Your task to perform on an android device: turn off notifications settings in the gmail app Image 0: 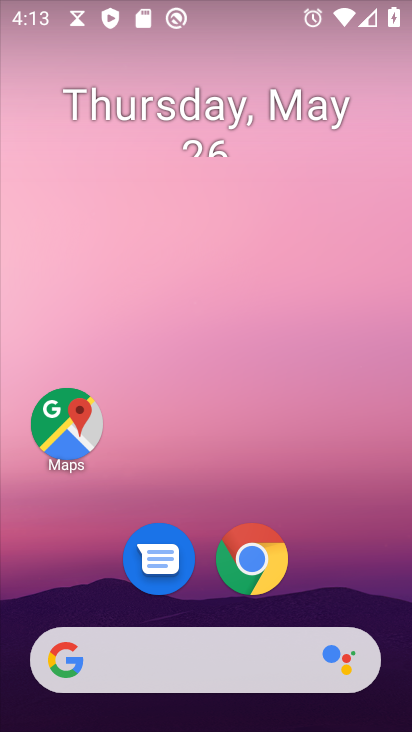
Step 0: drag from (348, 526) to (197, 92)
Your task to perform on an android device: turn off notifications settings in the gmail app Image 1: 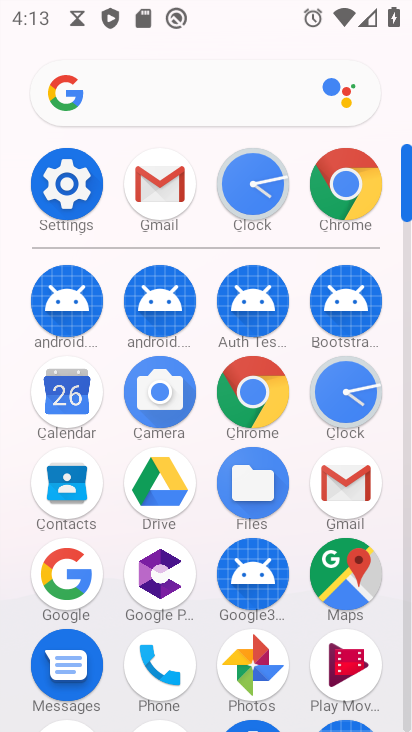
Step 1: click (353, 485)
Your task to perform on an android device: turn off notifications settings in the gmail app Image 2: 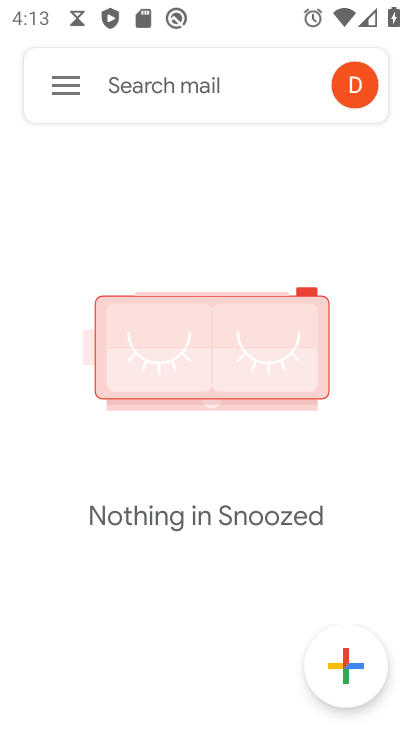
Step 2: click (46, 84)
Your task to perform on an android device: turn off notifications settings in the gmail app Image 3: 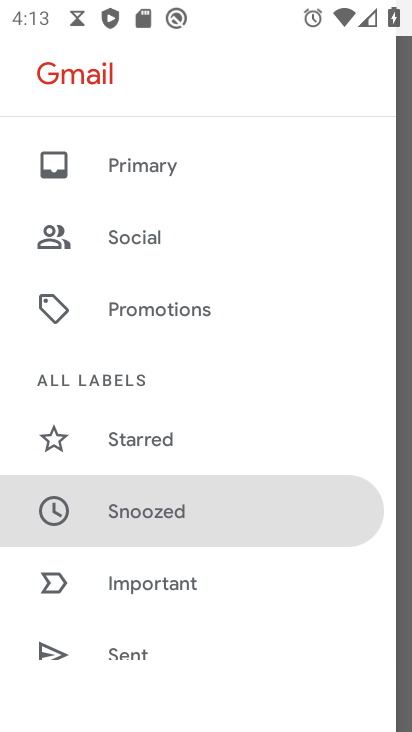
Step 3: drag from (265, 601) to (222, 114)
Your task to perform on an android device: turn off notifications settings in the gmail app Image 4: 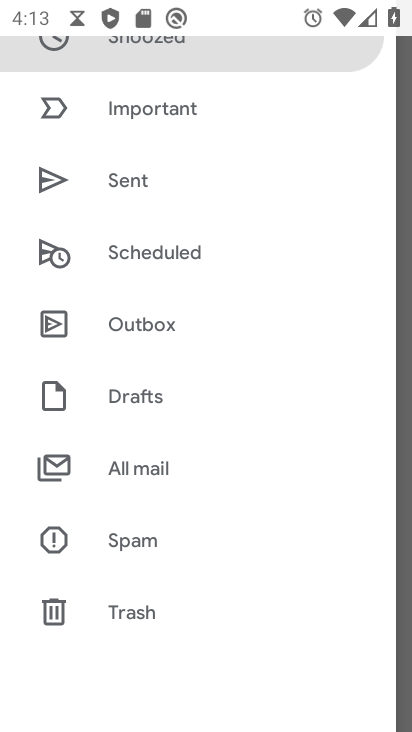
Step 4: drag from (217, 602) to (176, 123)
Your task to perform on an android device: turn off notifications settings in the gmail app Image 5: 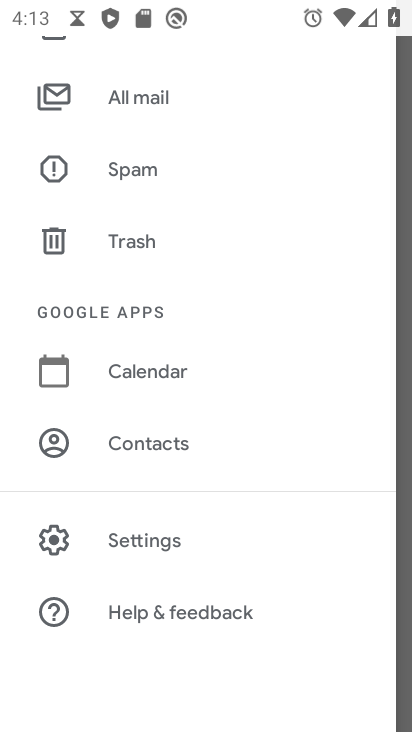
Step 5: click (218, 549)
Your task to perform on an android device: turn off notifications settings in the gmail app Image 6: 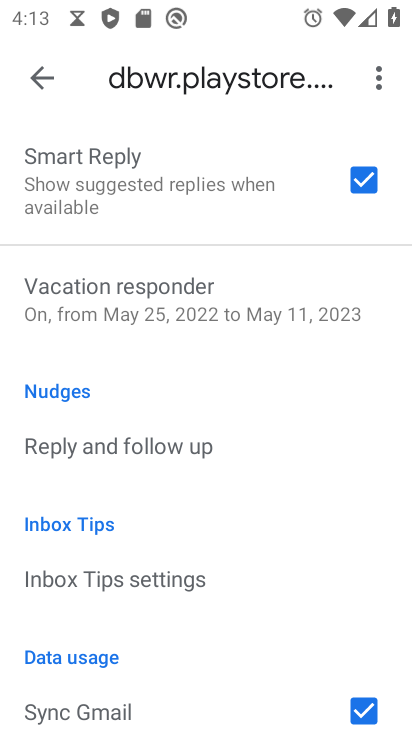
Step 6: drag from (180, 253) to (197, 722)
Your task to perform on an android device: turn off notifications settings in the gmail app Image 7: 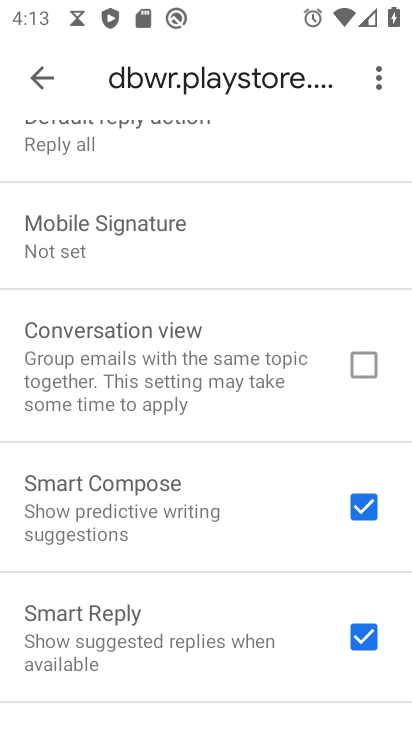
Step 7: drag from (179, 214) to (148, 719)
Your task to perform on an android device: turn off notifications settings in the gmail app Image 8: 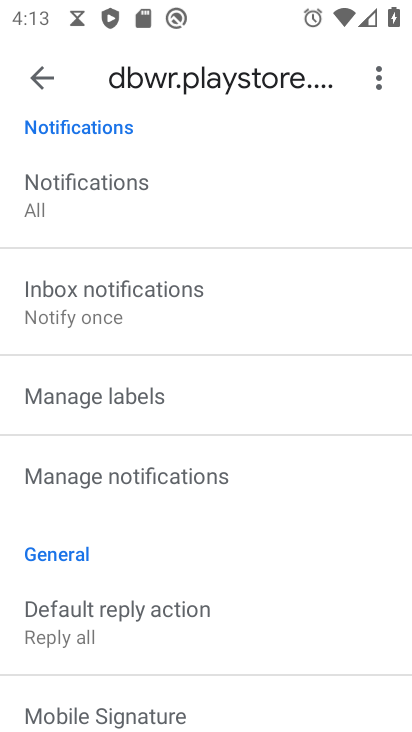
Step 8: click (145, 221)
Your task to perform on an android device: turn off notifications settings in the gmail app Image 9: 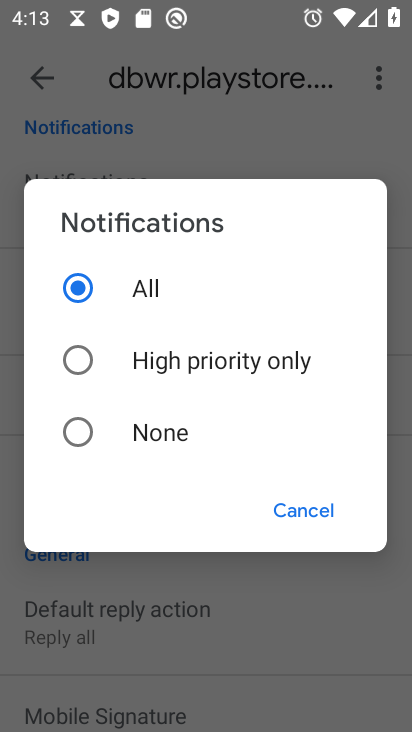
Step 9: click (158, 430)
Your task to perform on an android device: turn off notifications settings in the gmail app Image 10: 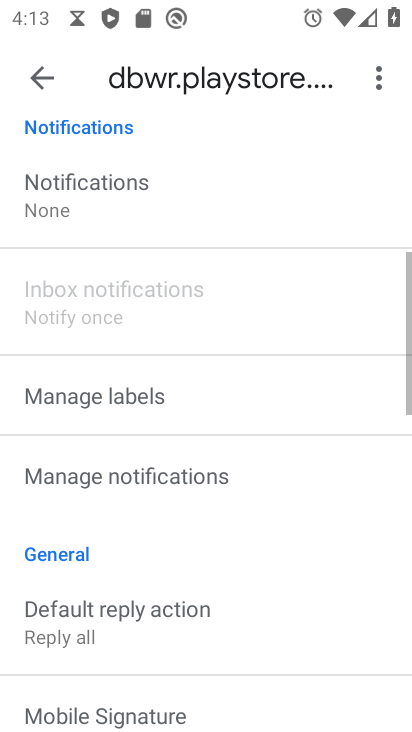
Step 10: task complete